Your task to perform on an android device: Go to Google maps Image 0: 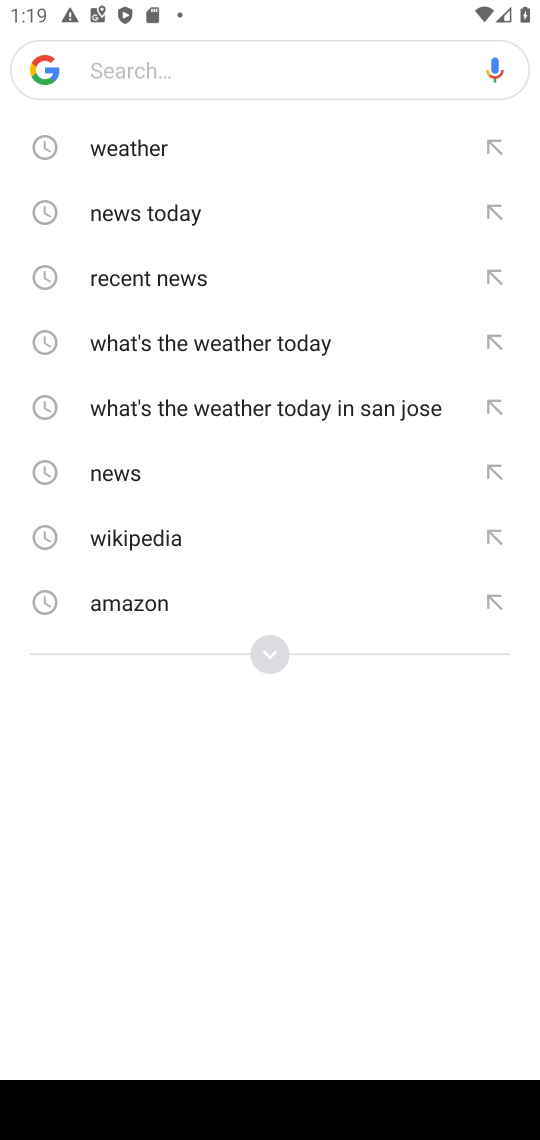
Step 0: press home button
Your task to perform on an android device: Go to Google maps Image 1: 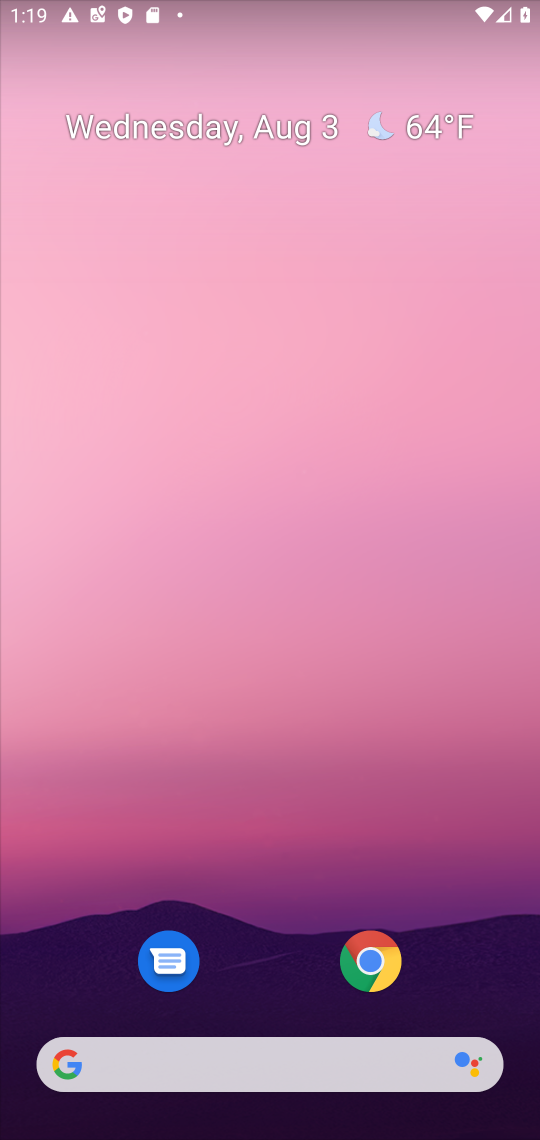
Step 1: drag from (262, 919) to (290, 74)
Your task to perform on an android device: Go to Google maps Image 2: 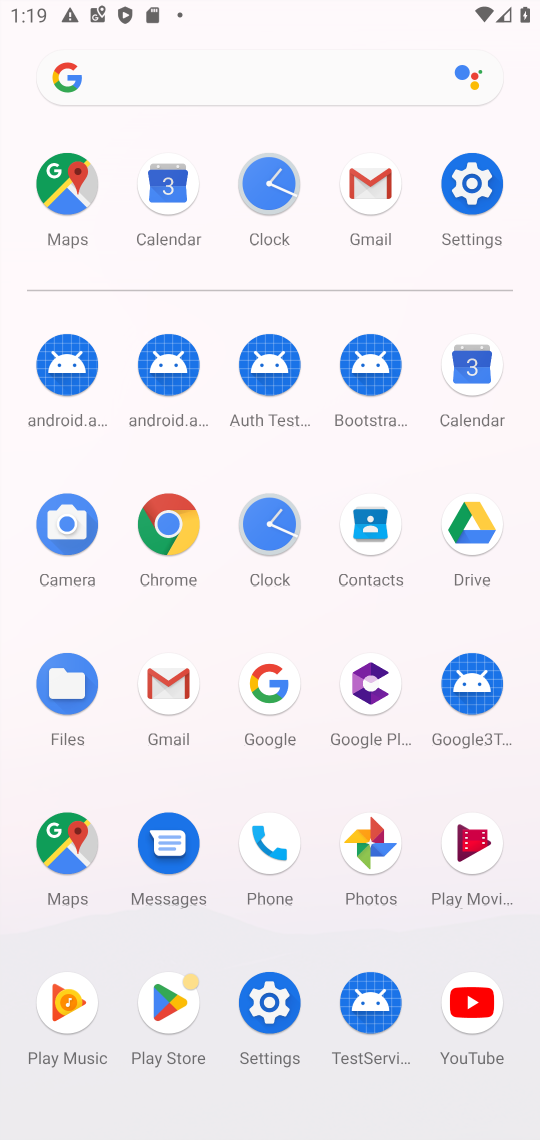
Step 2: click (58, 193)
Your task to perform on an android device: Go to Google maps Image 3: 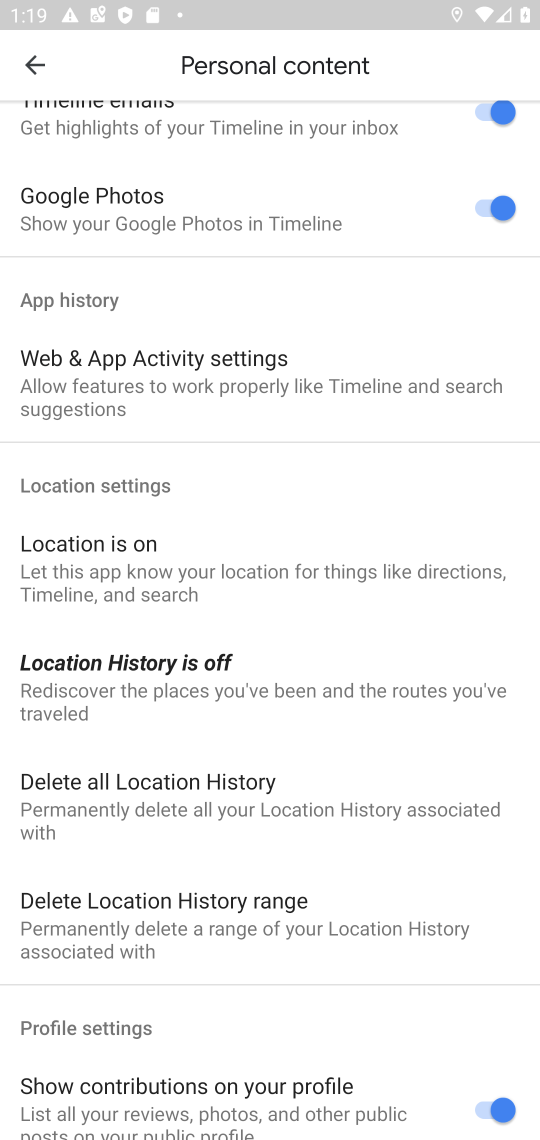
Step 3: task complete